Your task to perform on an android device: choose inbox layout in the gmail app Image 0: 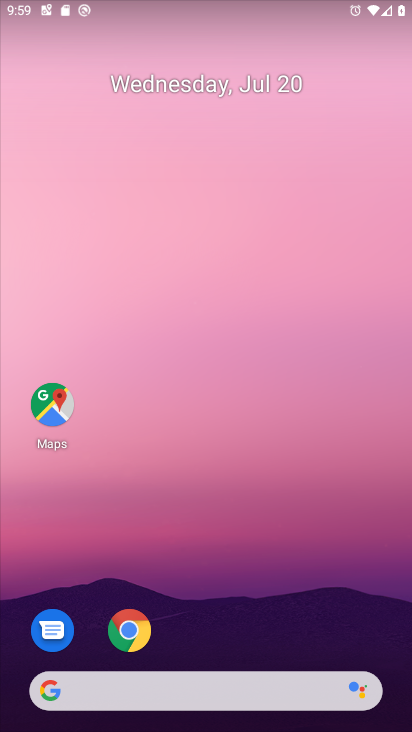
Step 0: drag from (237, 699) to (257, 180)
Your task to perform on an android device: choose inbox layout in the gmail app Image 1: 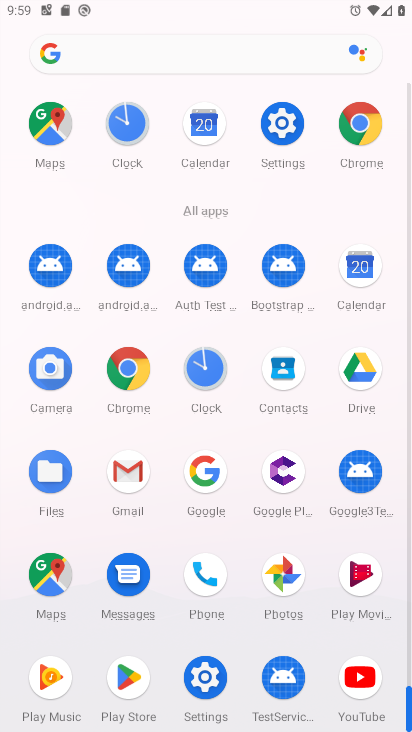
Step 1: click (127, 462)
Your task to perform on an android device: choose inbox layout in the gmail app Image 2: 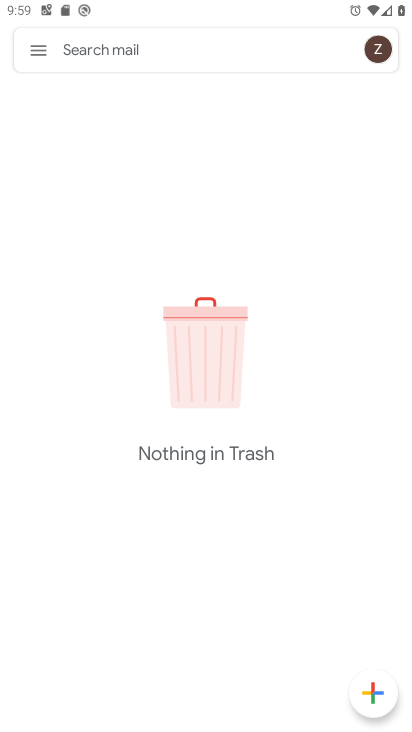
Step 2: click (39, 57)
Your task to perform on an android device: choose inbox layout in the gmail app Image 3: 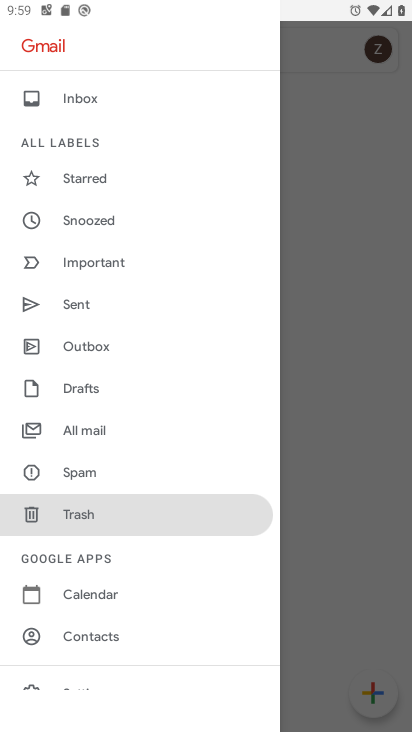
Step 3: drag from (99, 602) to (77, 176)
Your task to perform on an android device: choose inbox layout in the gmail app Image 4: 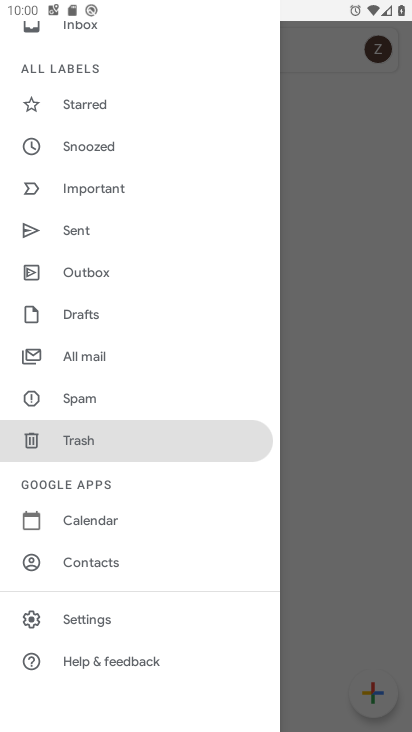
Step 4: click (65, 620)
Your task to perform on an android device: choose inbox layout in the gmail app Image 5: 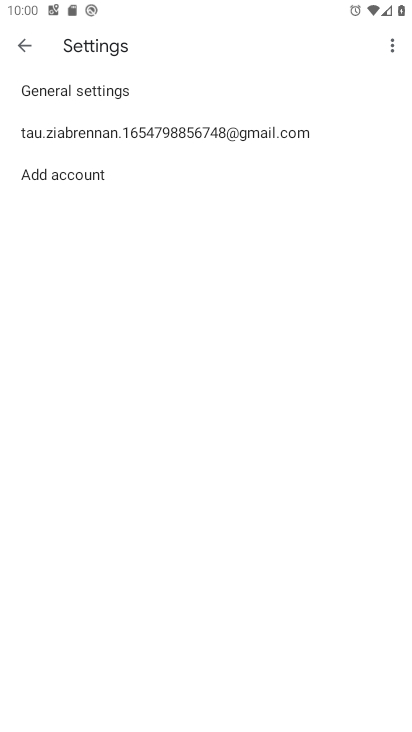
Step 5: click (88, 130)
Your task to perform on an android device: choose inbox layout in the gmail app Image 6: 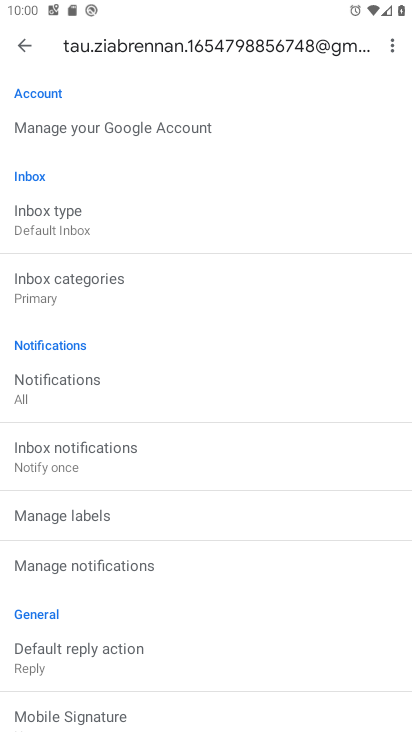
Step 6: click (54, 230)
Your task to perform on an android device: choose inbox layout in the gmail app Image 7: 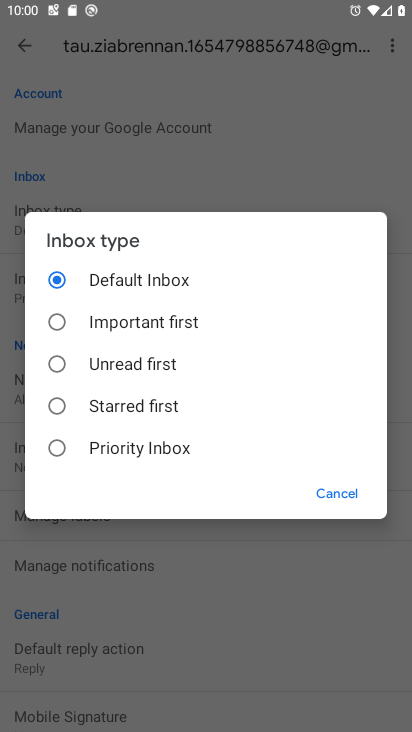
Step 7: click (105, 446)
Your task to perform on an android device: choose inbox layout in the gmail app Image 8: 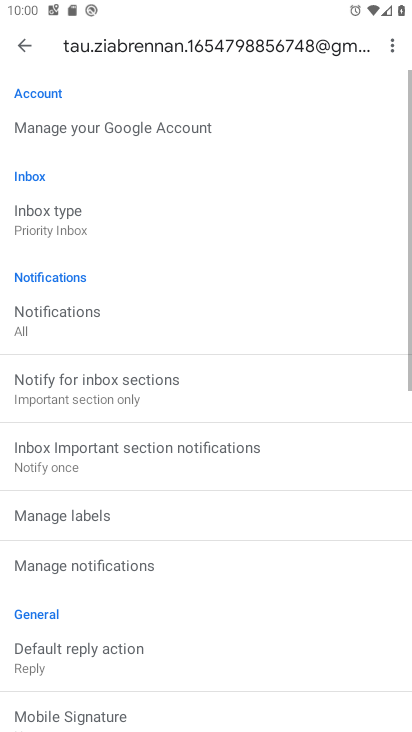
Step 8: task complete